Your task to perform on an android device: Search for Mexican restaurants on Maps Image 0: 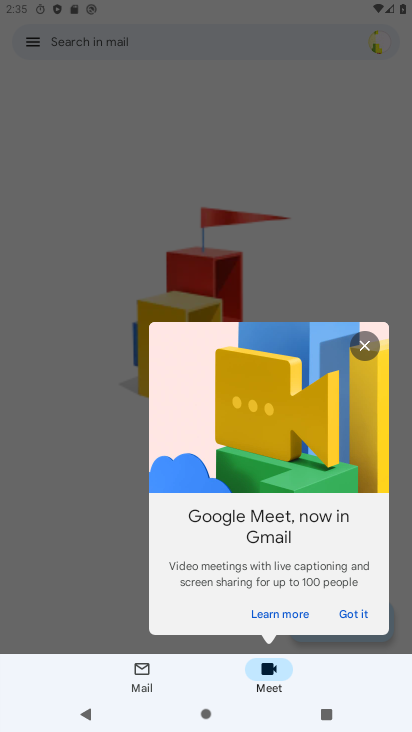
Step 0: press home button
Your task to perform on an android device: Search for Mexican restaurants on Maps Image 1: 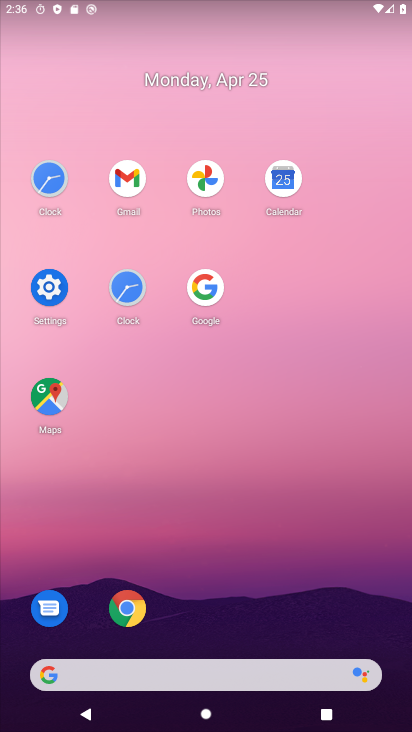
Step 1: click (47, 403)
Your task to perform on an android device: Search for Mexican restaurants on Maps Image 2: 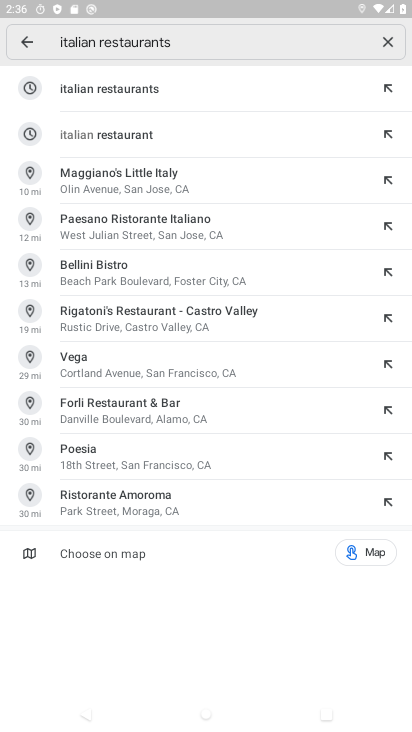
Step 2: click (385, 36)
Your task to perform on an android device: Search for Mexican restaurants on Maps Image 3: 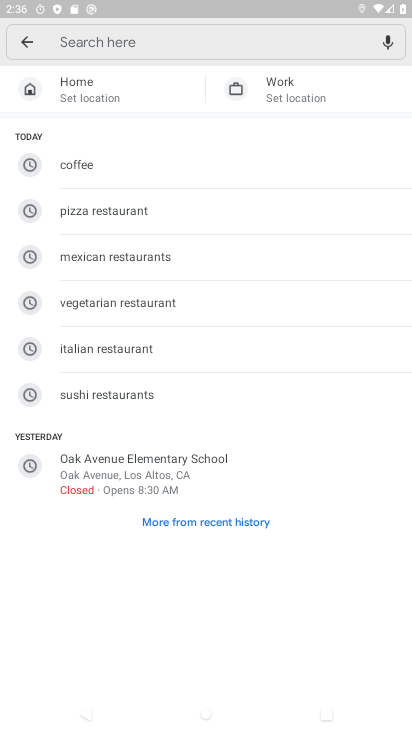
Step 3: click (184, 48)
Your task to perform on an android device: Search for Mexican restaurants on Maps Image 4: 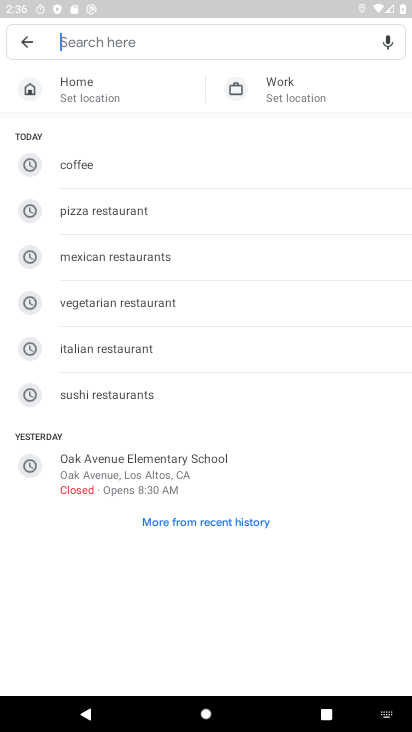
Step 4: type "mexican restaurants"
Your task to perform on an android device: Search for Mexican restaurants on Maps Image 5: 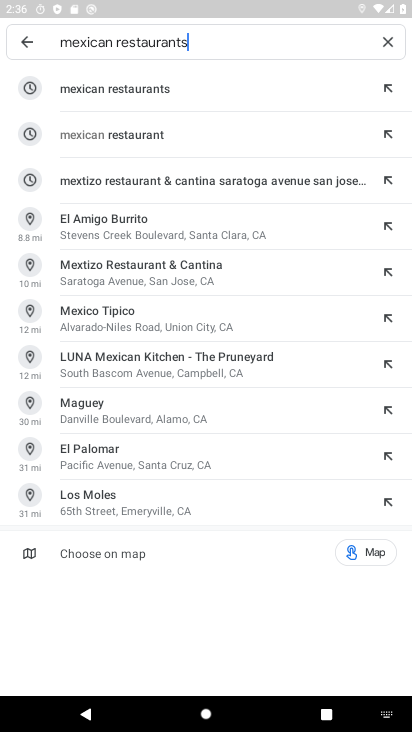
Step 5: task complete